Your task to perform on an android device: see tabs open on other devices in the chrome app Image 0: 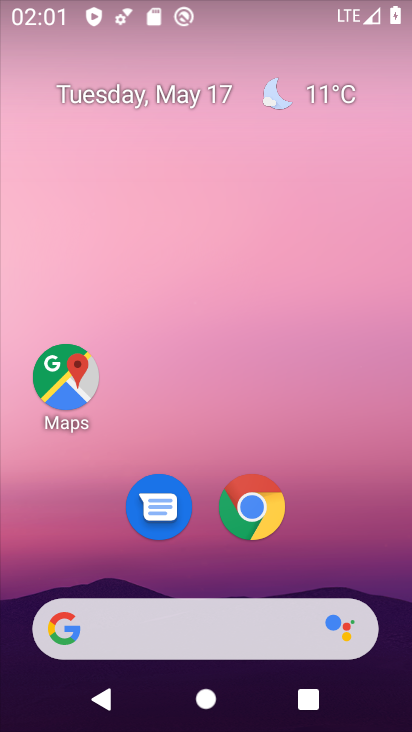
Step 0: click (255, 504)
Your task to perform on an android device: see tabs open on other devices in the chrome app Image 1: 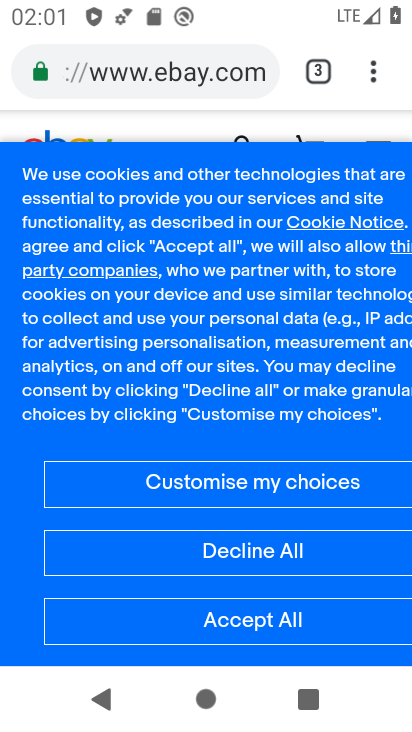
Step 1: click (387, 60)
Your task to perform on an android device: see tabs open on other devices in the chrome app Image 2: 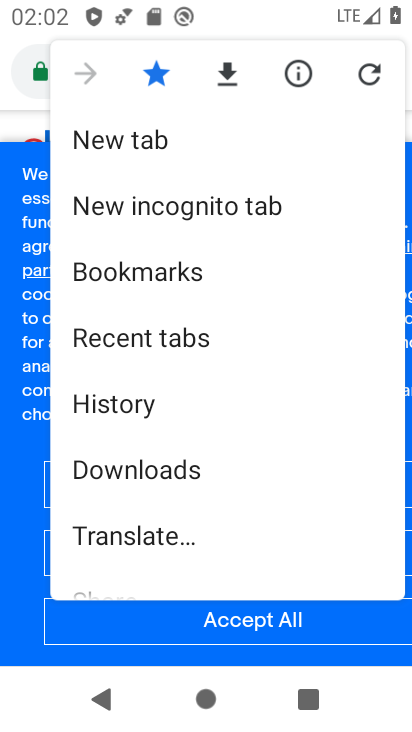
Step 2: drag from (158, 443) to (238, 149)
Your task to perform on an android device: see tabs open on other devices in the chrome app Image 3: 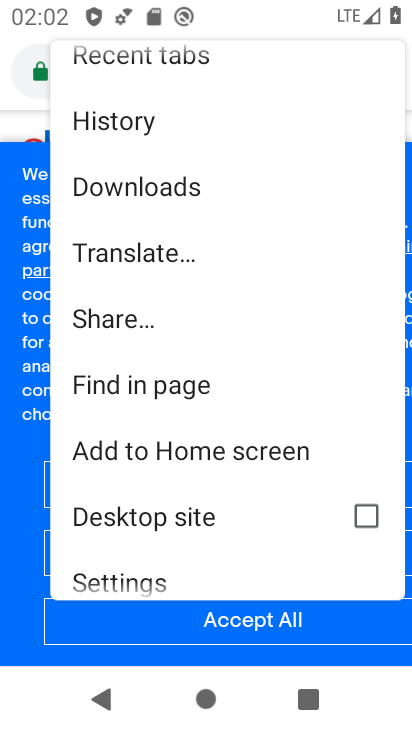
Step 3: click (213, 63)
Your task to perform on an android device: see tabs open on other devices in the chrome app Image 4: 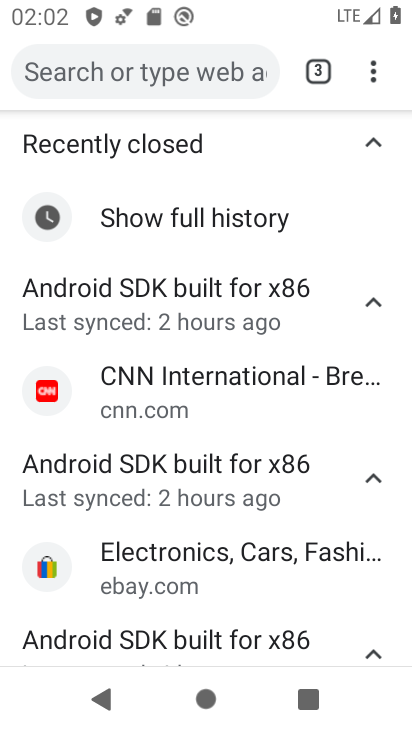
Step 4: task complete